Your task to perform on an android device: turn off improve location accuracy Image 0: 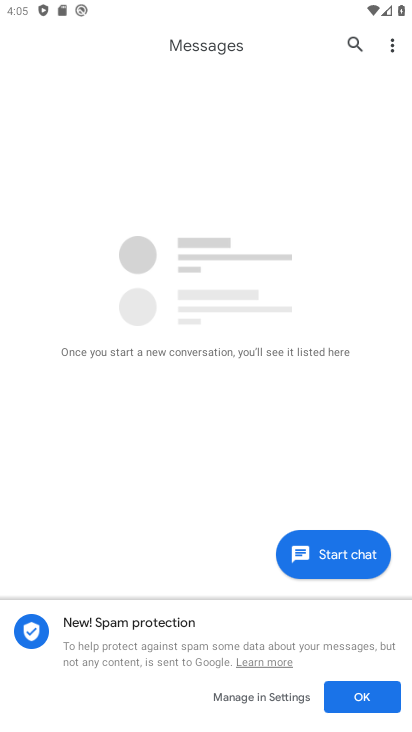
Step 0: press home button
Your task to perform on an android device: turn off improve location accuracy Image 1: 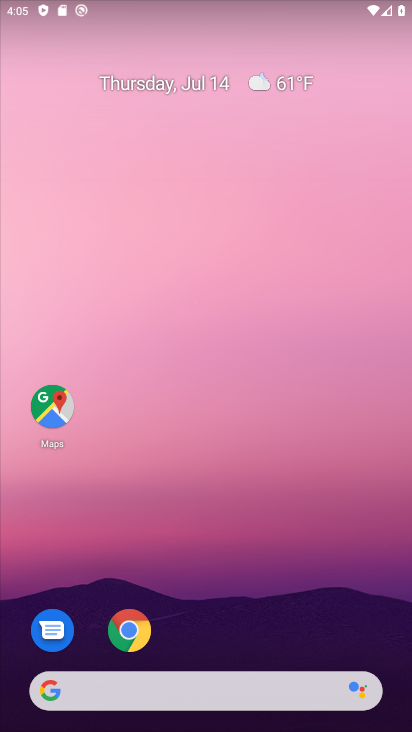
Step 1: drag from (237, 620) to (170, 238)
Your task to perform on an android device: turn off improve location accuracy Image 2: 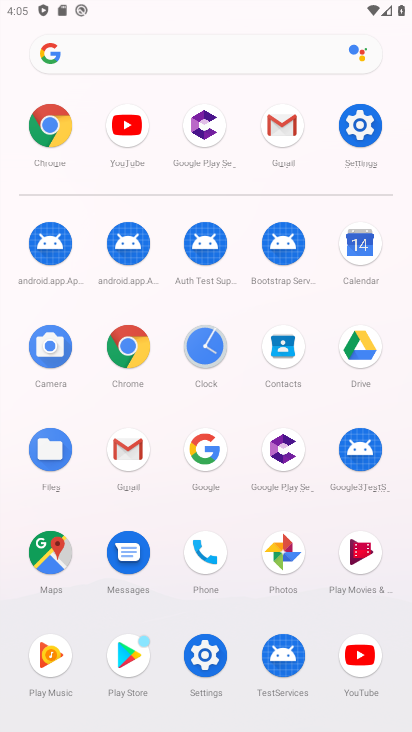
Step 2: click (360, 135)
Your task to perform on an android device: turn off improve location accuracy Image 3: 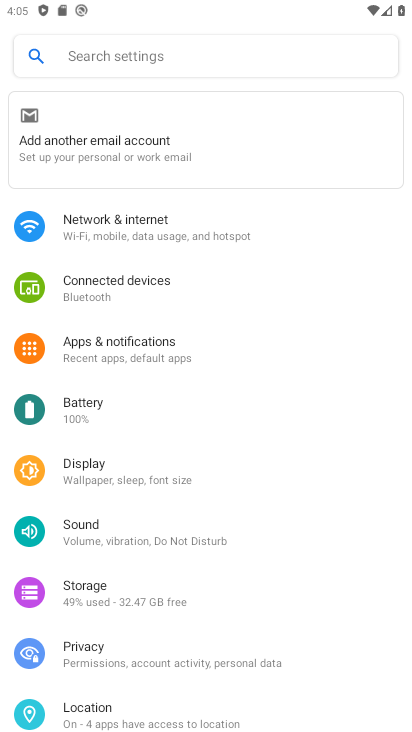
Step 3: click (186, 717)
Your task to perform on an android device: turn off improve location accuracy Image 4: 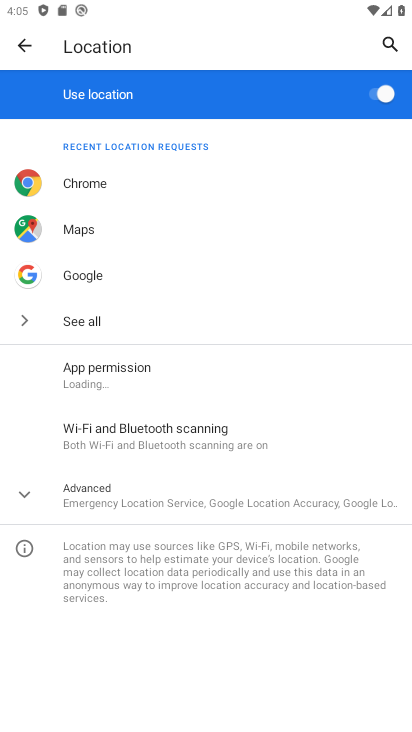
Step 4: click (179, 488)
Your task to perform on an android device: turn off improve location accuracy Image 5: 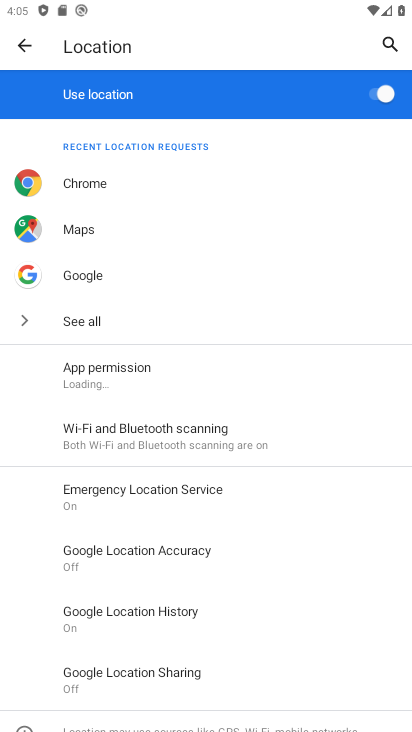
Step 5: click (222, 565)
Your task to perform on an android device: turn off improve location accuracy Image 6: 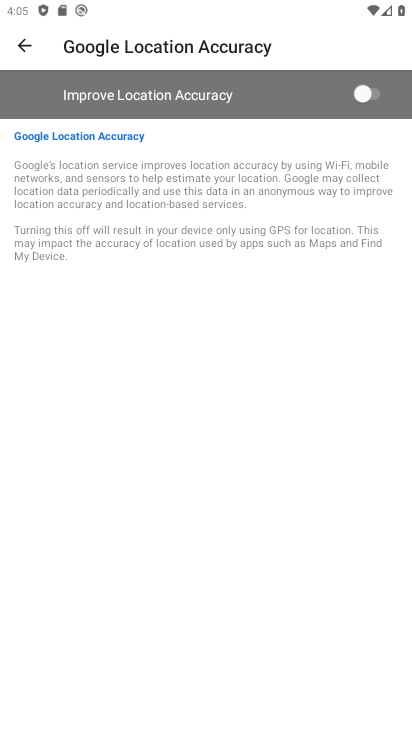
Step 6: task complete